Your task to perform on an android device: Search for the best selling book on Amazon. Image 0: 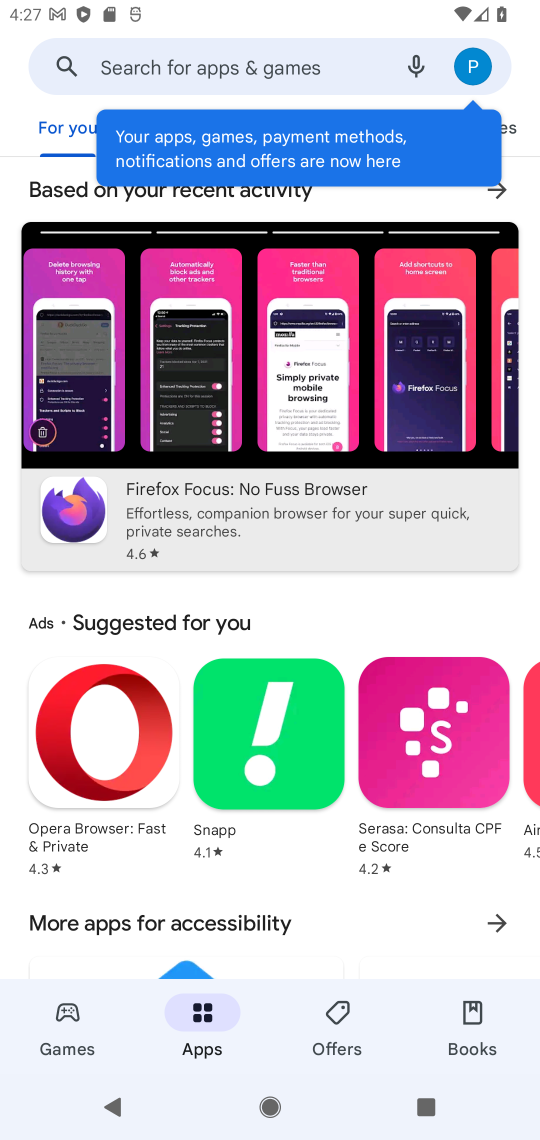
Step 0: press home button
Your task to perform on an android device: Search for the best selling book on Amazon. Image 1: 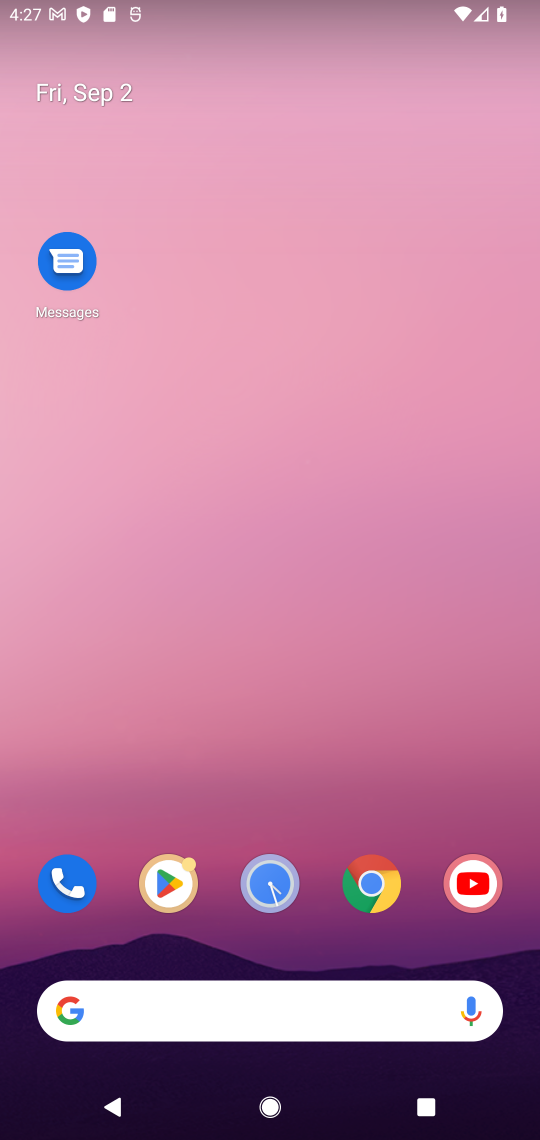
Step 1: click (483, 7)
Your task to perform on an android device: Search for the best selling book on Amazon. Image 2: 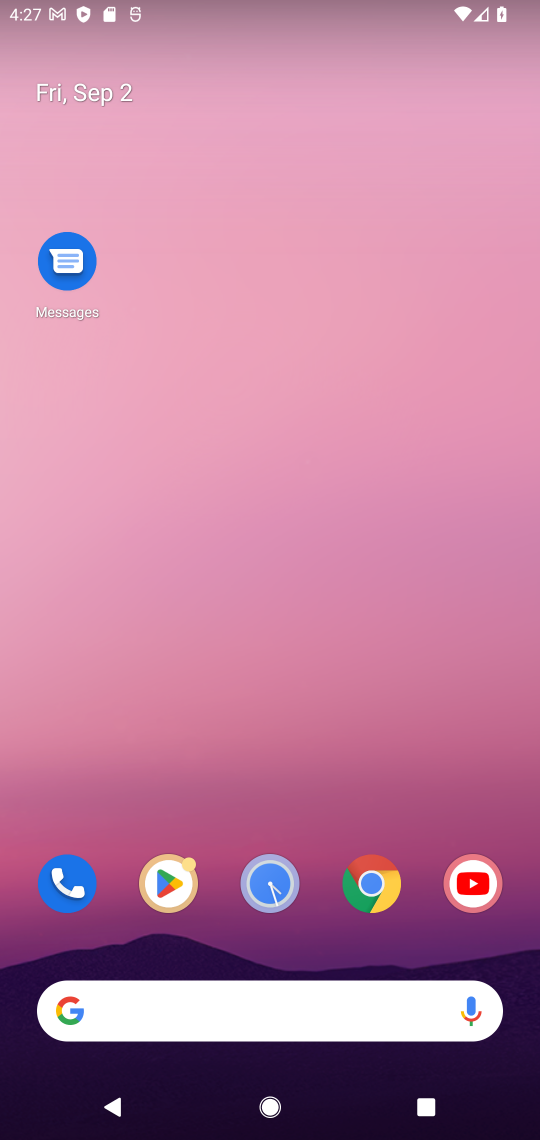
Step 2: drag from (376, 326) to (376, 147)
Your task to perform on an android device: Search for the best selling book on Amazon. Image 3: 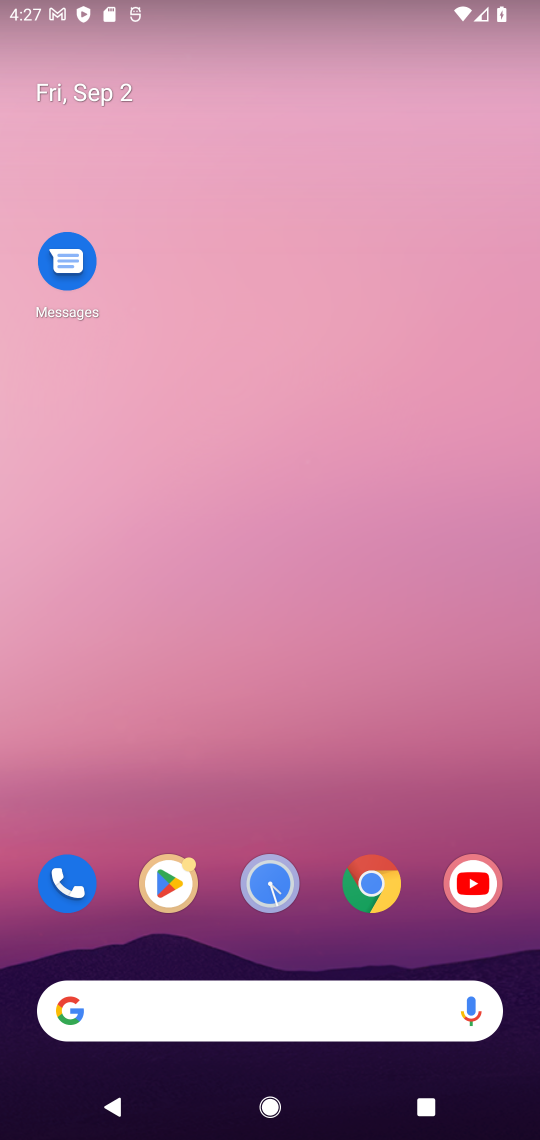
Step 3: drag from (247, 1003) to (275, 248)
Your task to perform on an android device: Search for the best selling book on Amazon. Image 4: 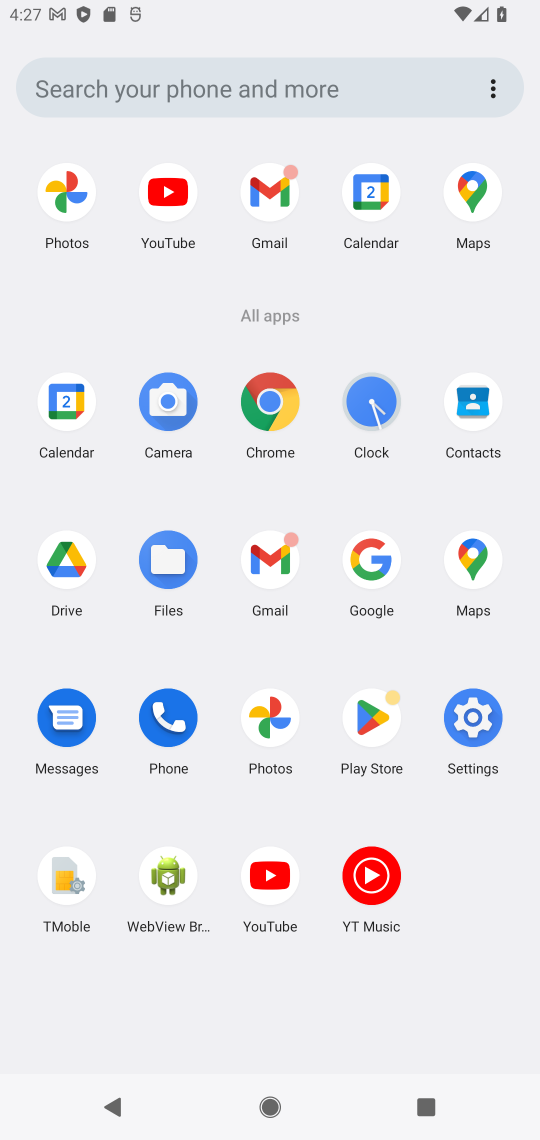
Step 4: drag from (251, 1056) to (246, 120)
Your task to perform on an android device: Search for the best selling book on Amazon. Image 5: 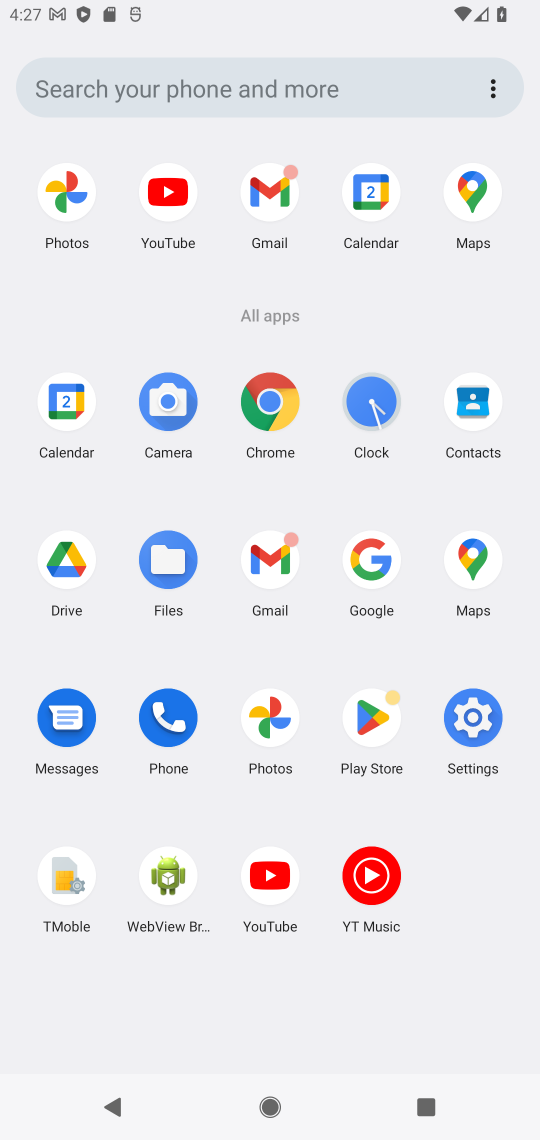
Step 5: click (276, 405)
Your task to perform on an android device: Search for the best selling book on Amazon. Image 6: 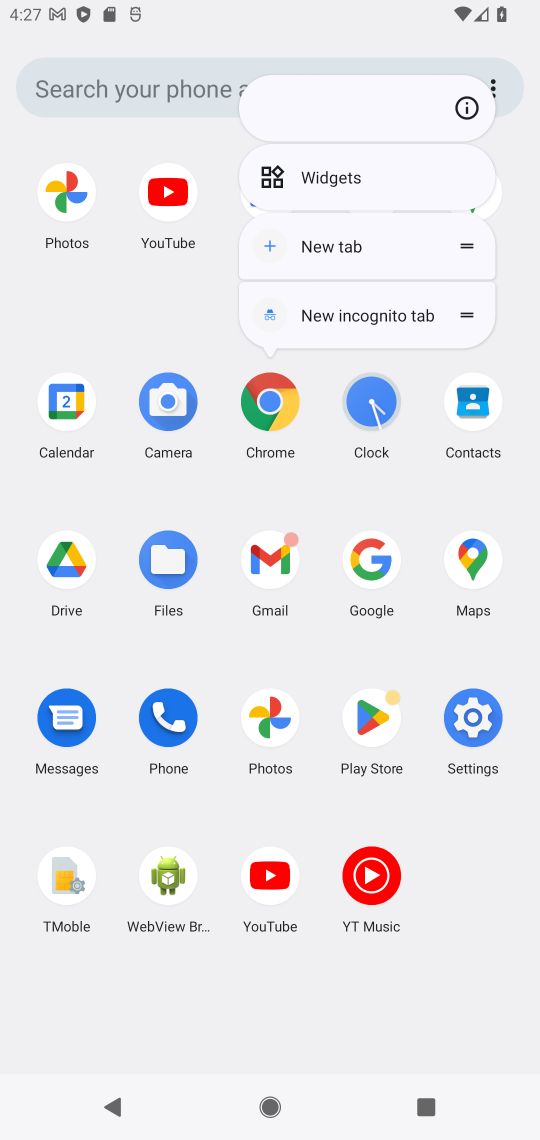
Step 6: click (271, 404)
Your task to perform on an android device: Search for the best selling book on Amazon. Image 7: 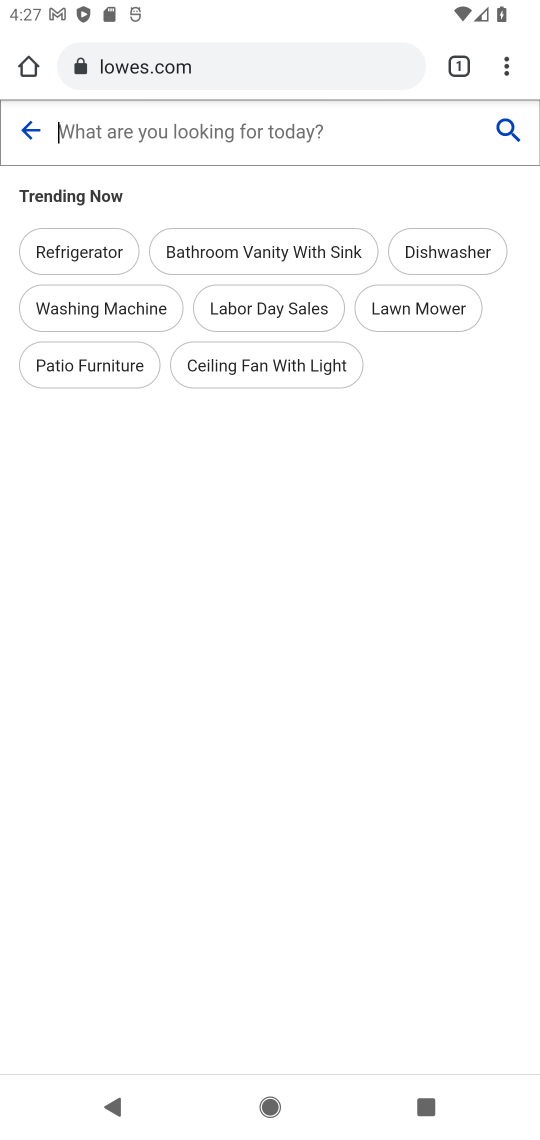
Step 7: click (268, 404)
Your task to perform on an android device: Search for the best selling book on Amazon. Image 8: 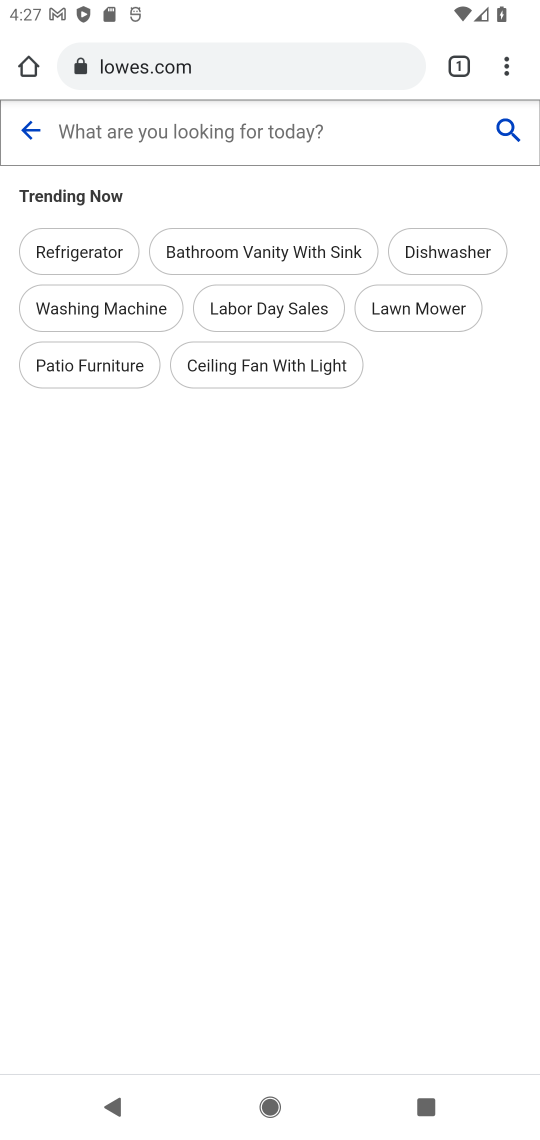
Step 8: click (219, 100)
Your task to perform on an android device: Search for the best selling book on Amazon. Image 9: 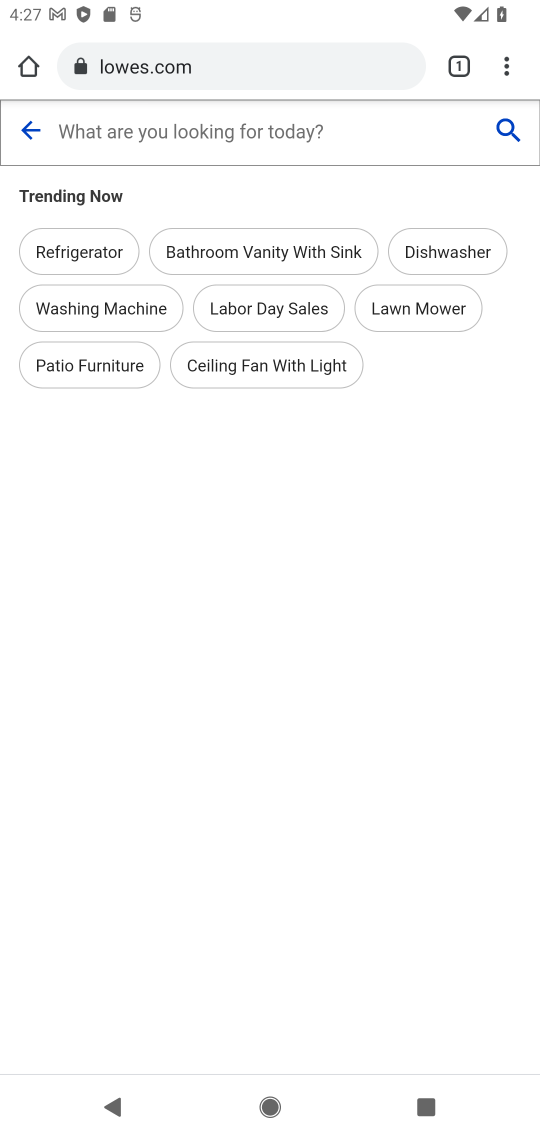
Step 9: click (220, 67)
Your task to perform on an android device: Search for the best selling book on Amazon. Image 10: 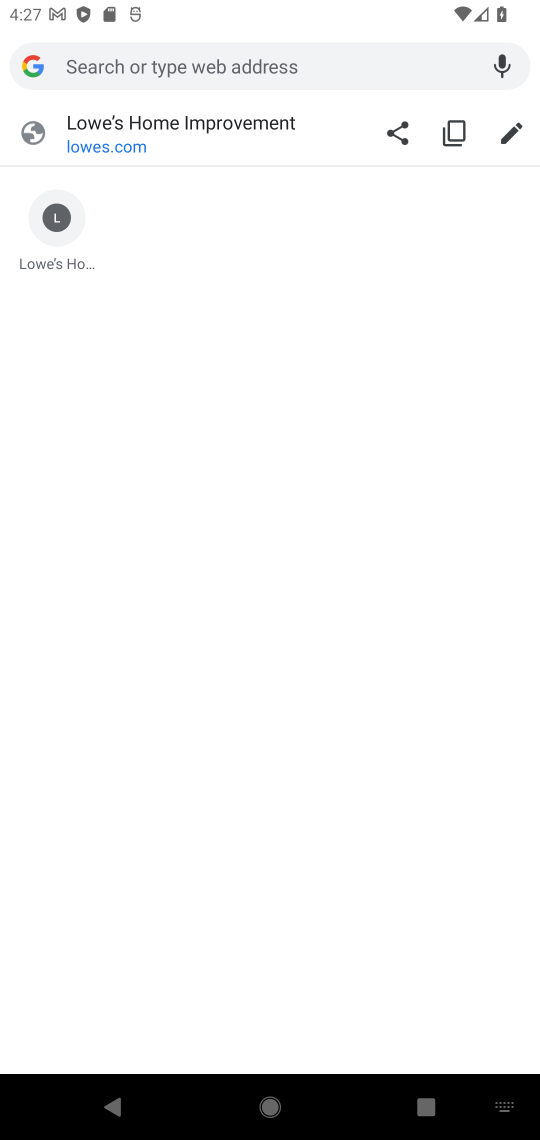
Step 10: click (223, 61)
Your task to perform on an android device: Search for the best selling book on Amazon. Image 11: 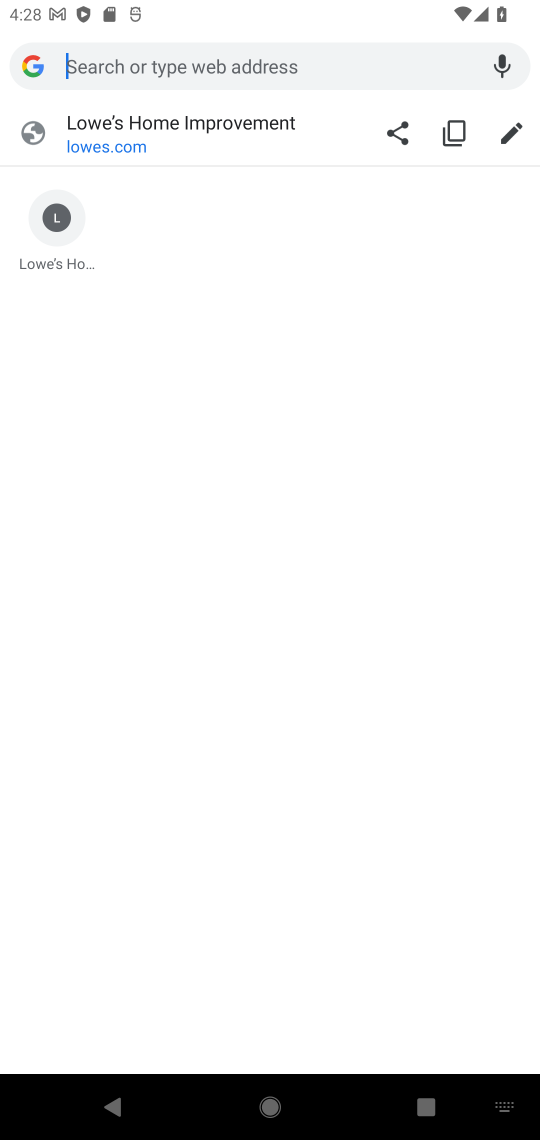
Step 11: type "Amazon"
Your task to perform on an android device: Search for the best selling book on Amazon. Image 12: 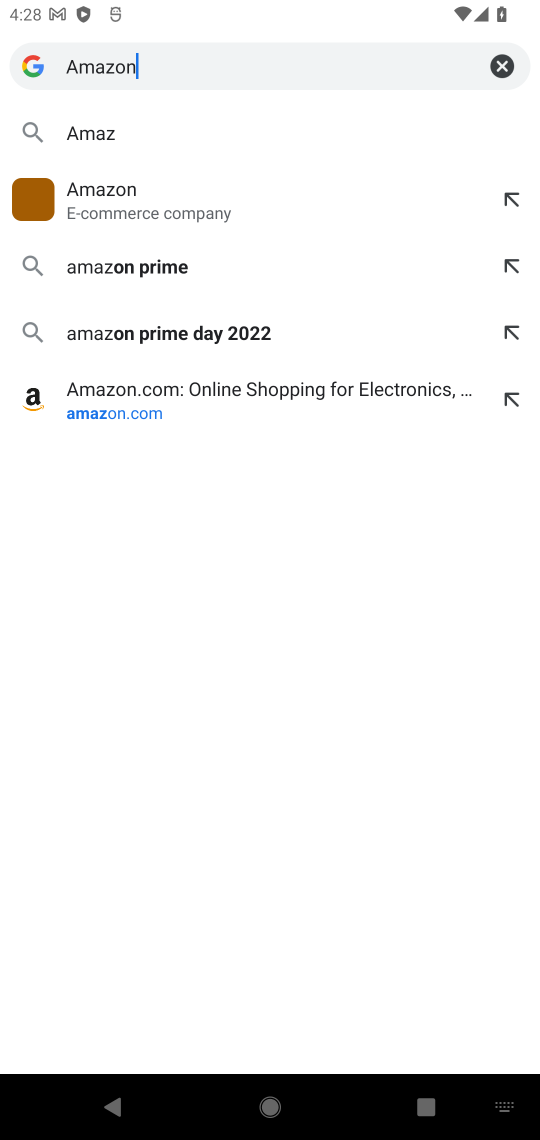
Step 12: press enter
Your task to perform on an android device: Search for the best selling book on Amazon. Image 13: 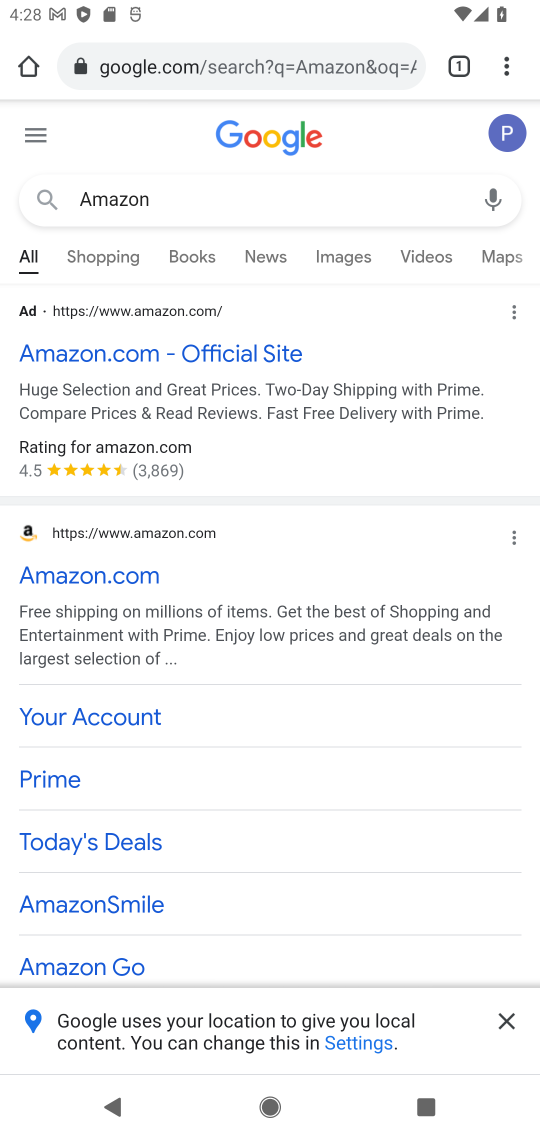
Step 13: click (193, 334)
Your task to perform on an android device: Search for the best selling book on Amazon. Image 14: 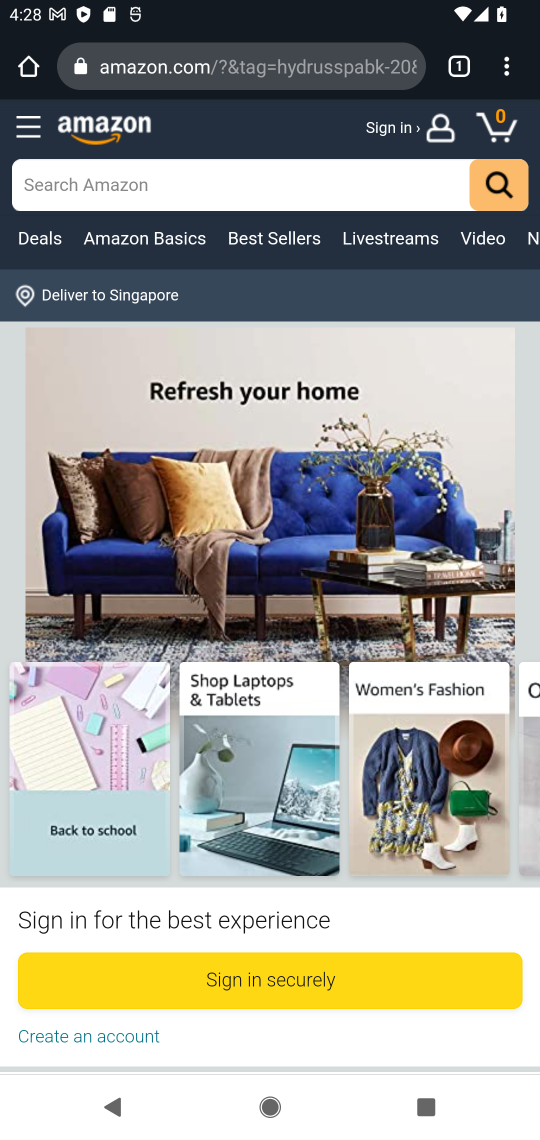
Step 14: click (193, 199)
Your task to perform on an android device: Search for the best selling book on Amazon. Image 15: 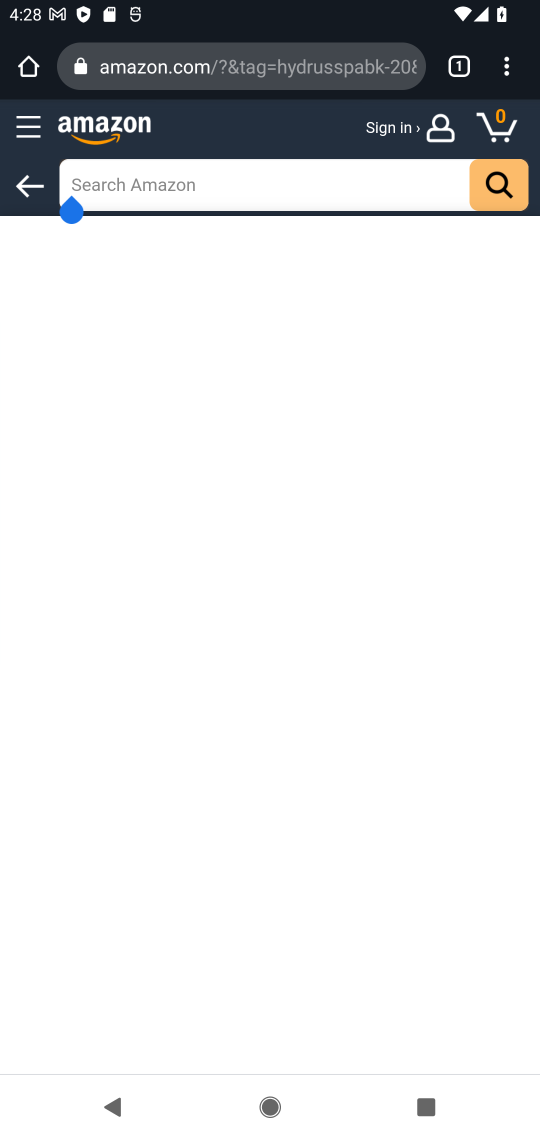
Step 15: click (111, 167)
Your task to perform on an android device: Search for the best selling book on Amazon. Image 16: 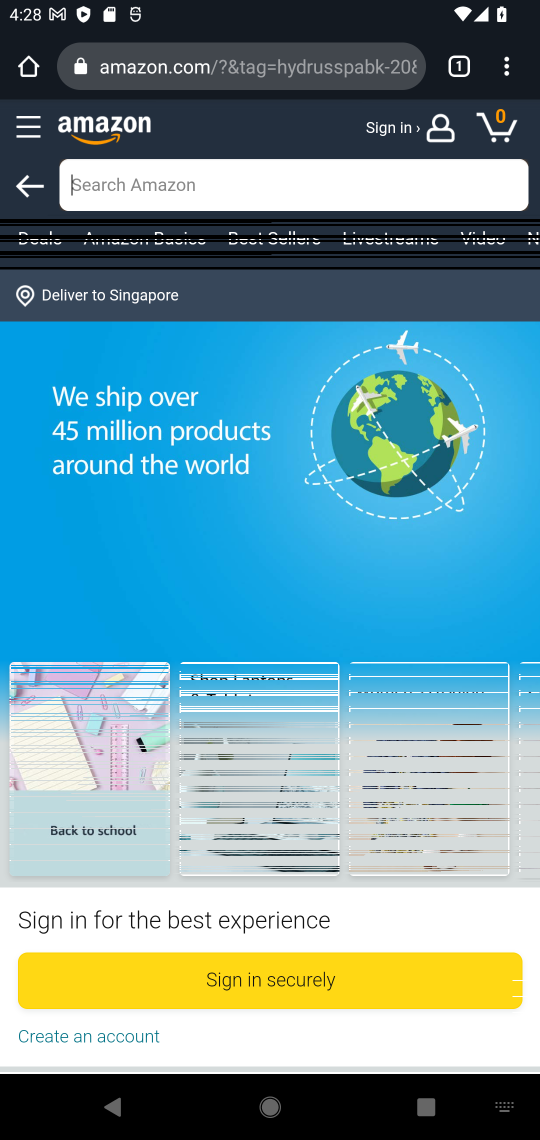
Step 16: click (132, 188)
Your task to perform on an android device: Search for the best selling book on Amazon. Image 17: 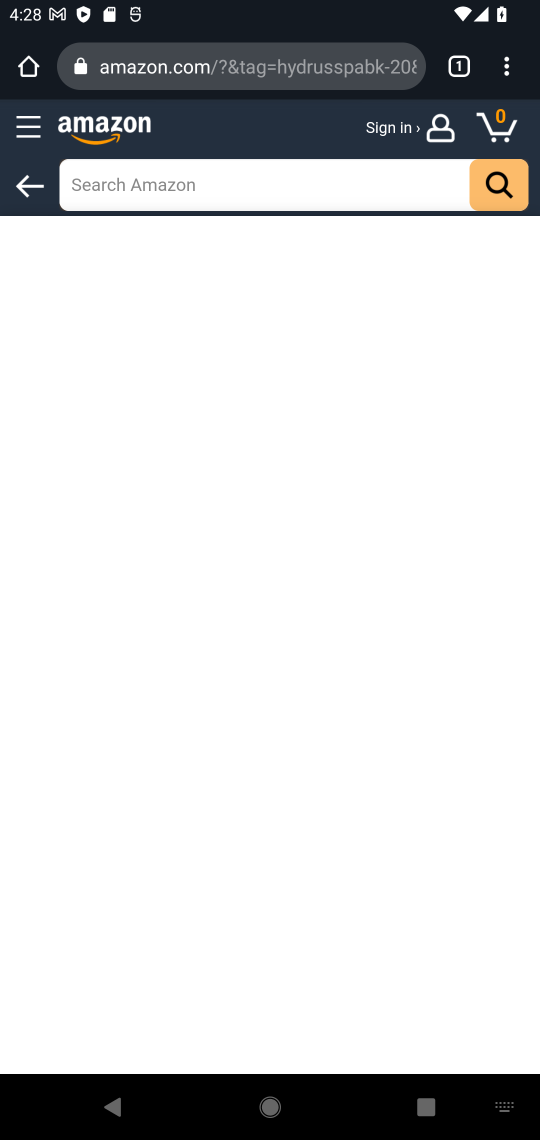
Step 17: type "best selling book"
Your task to perform on an android device: Search for the best selling book on Amazon. Image 18: 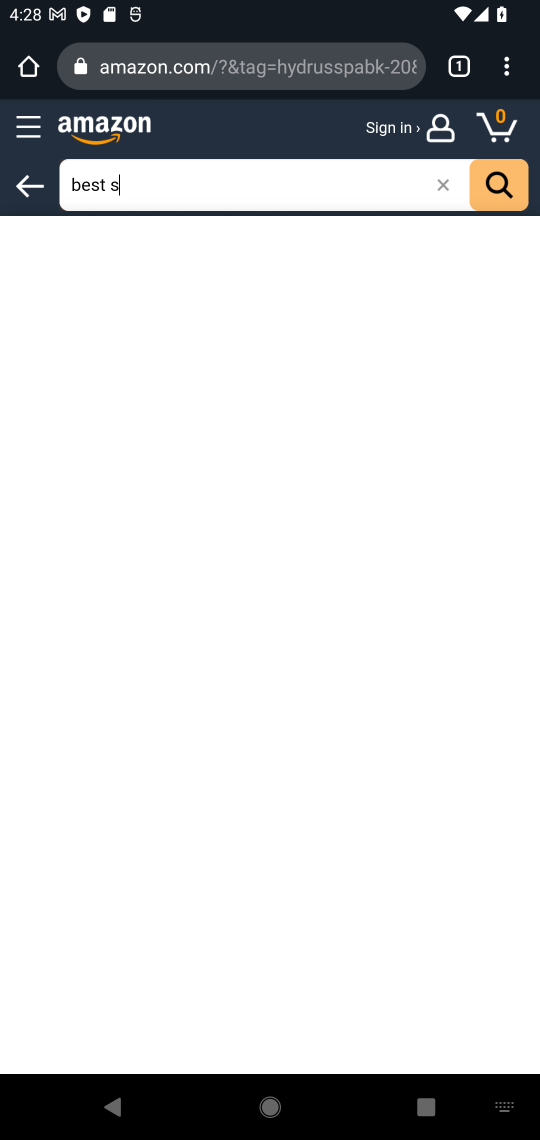
Step 18: press enter
Your task to perform on an android device: Search for the best selling book on Amazon. Image 19: 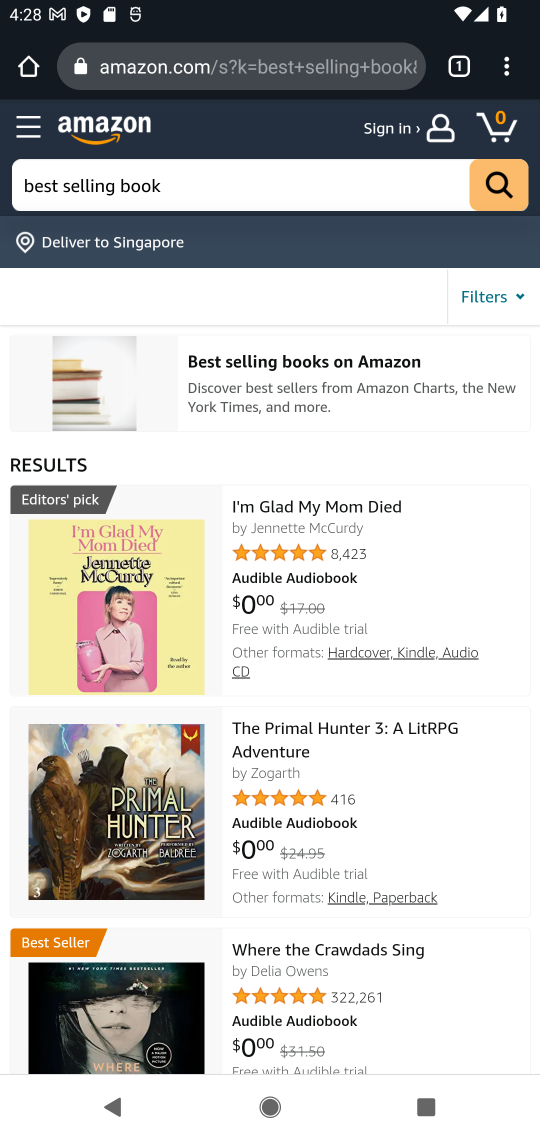
Step 19: task complete